Your task to perform on an android device: install app "Google Calendar" Image 0: 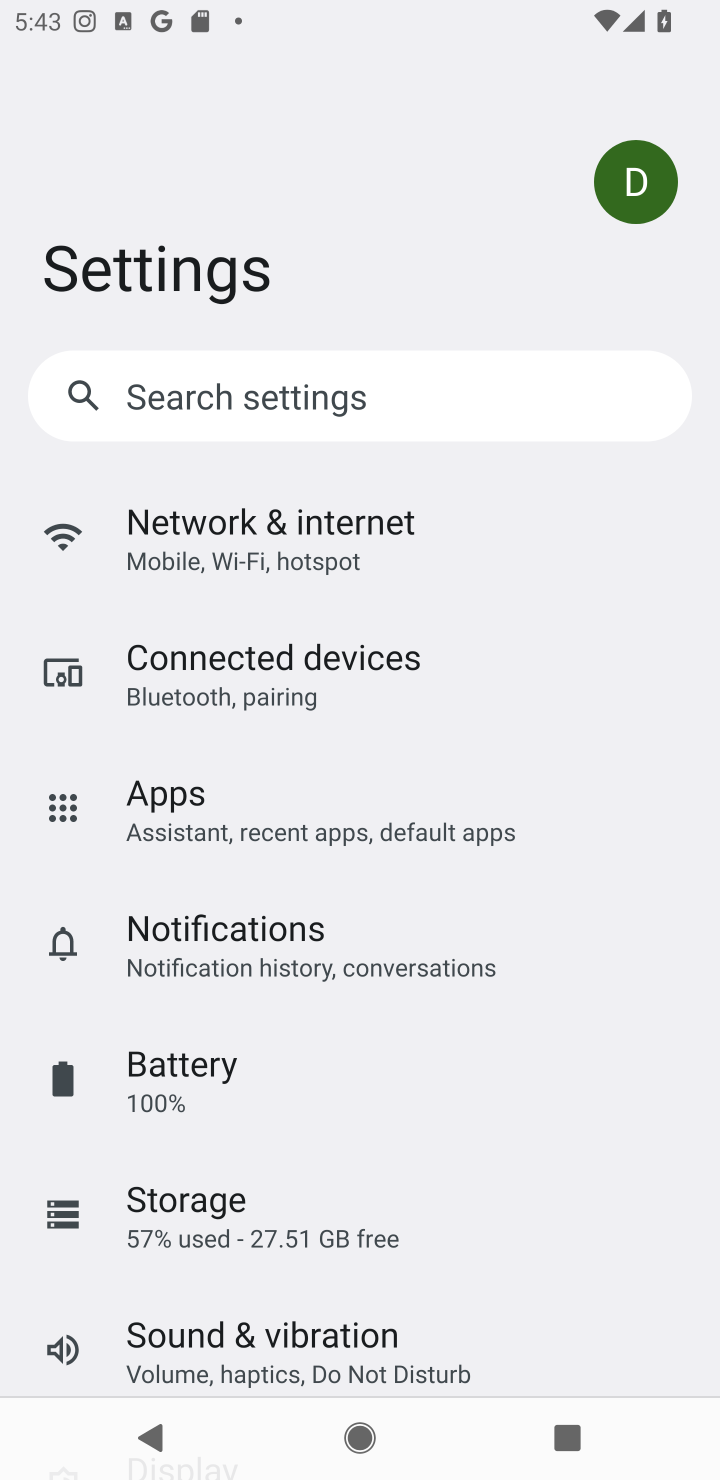
Step 0: press home button
Your task to perform on an android device: install app "Google Calendar" Image 1: 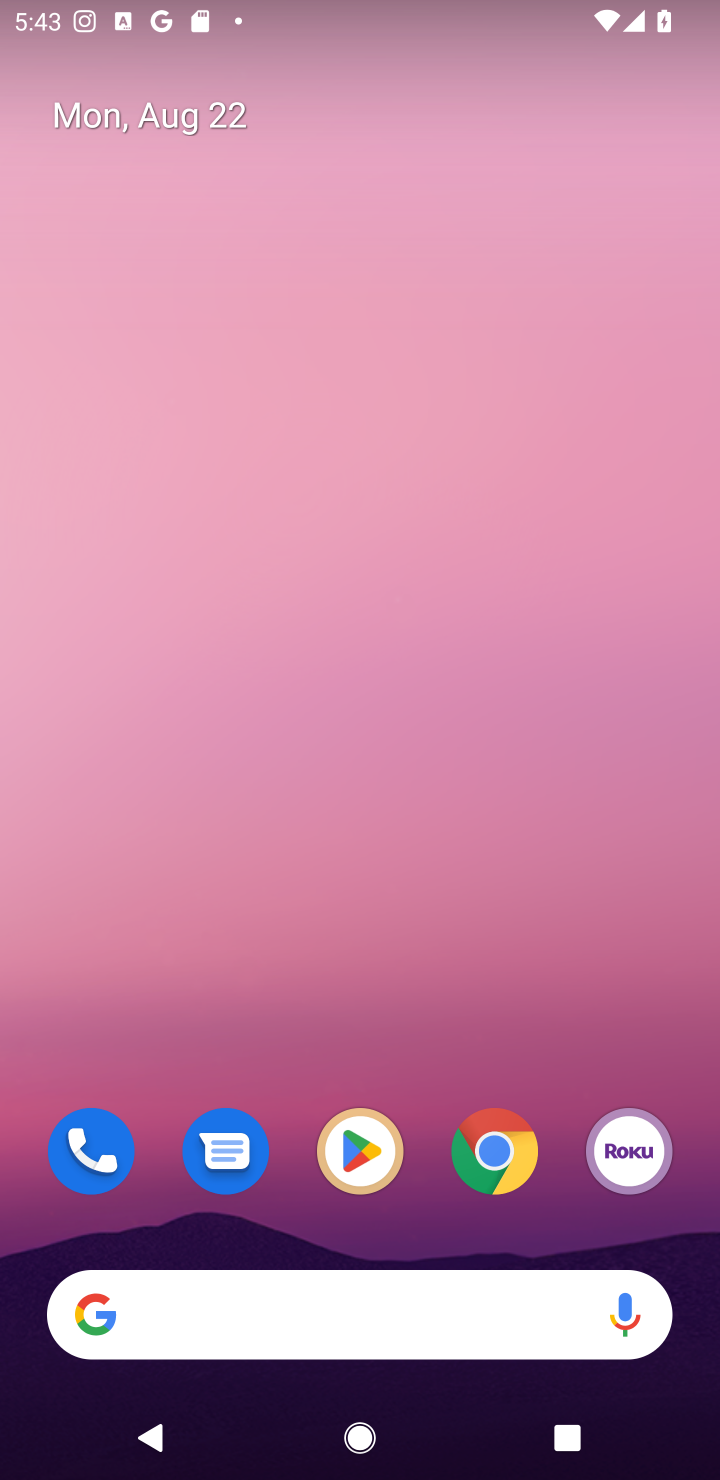
Step 1: click (355, 1153)
Your task to perform on an android device: install app "Google Calendar" Image 2: 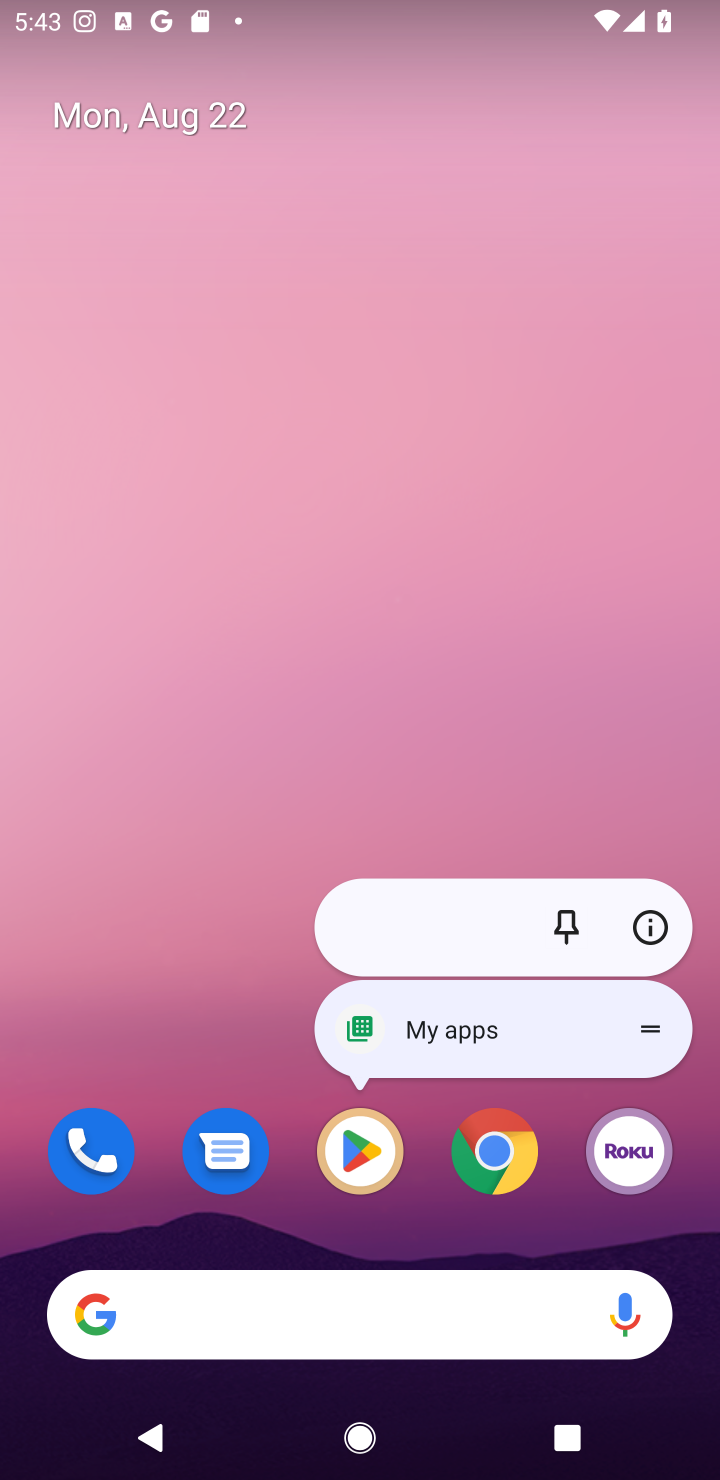
Step 2: click (355, 1153)
Your task to perform on an android device: install app "Google Calendar" Image 3: 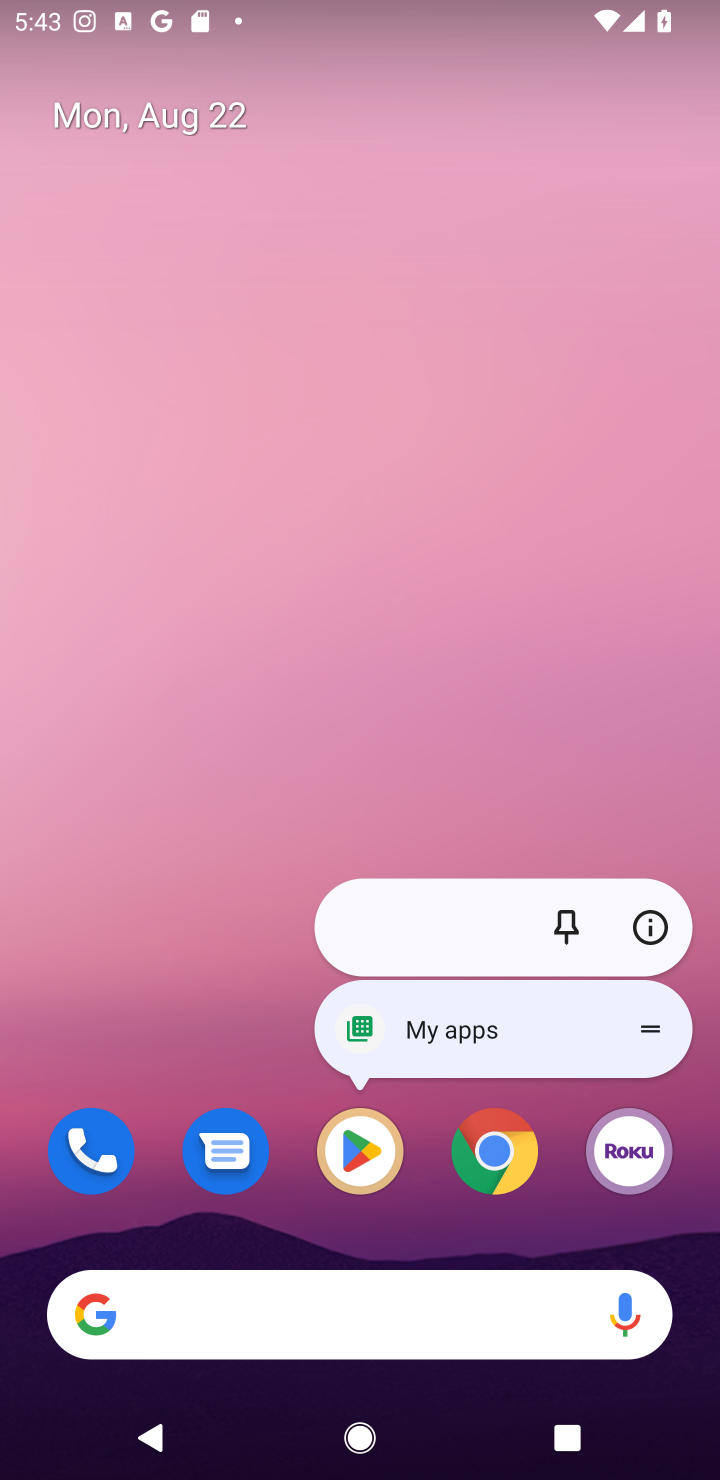
Step 3: click (352, 1159)
Your task to perform on an android device: install app "Google Calendar" Image 4: 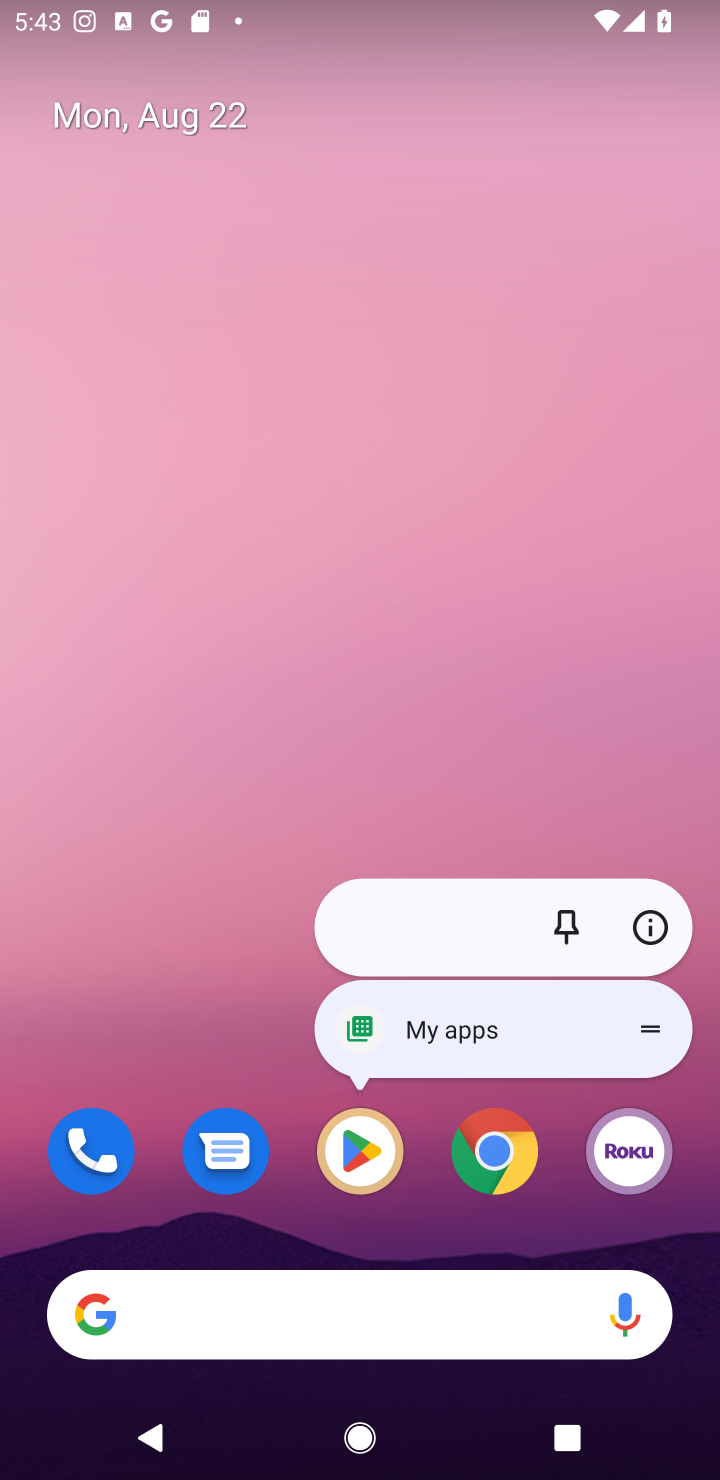
Step 4: click (352, 1159)
Your task to perform on an android device: install app "Google Calendar" Image 5: 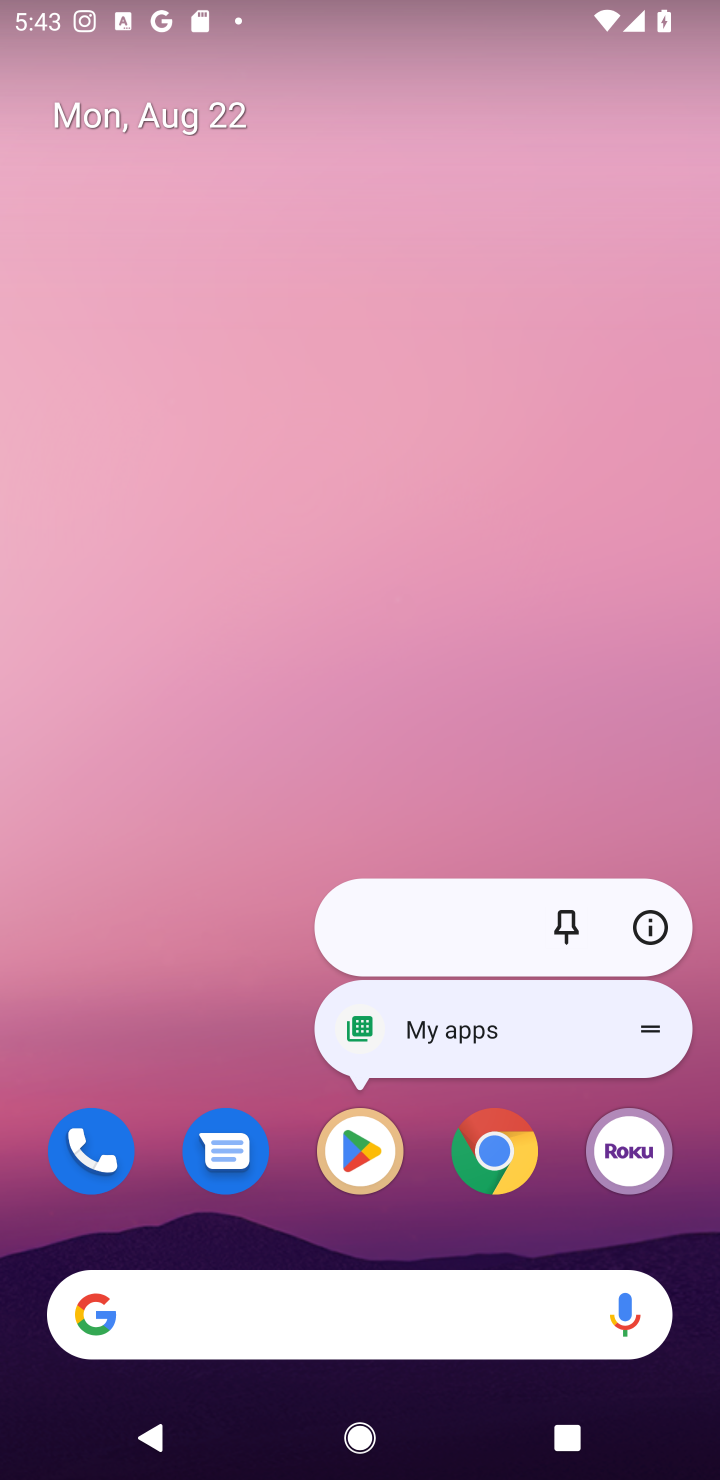
Step 5: click (352, 1162)
Your task to perform on an android device: install app "Google Calendar" Image 6: 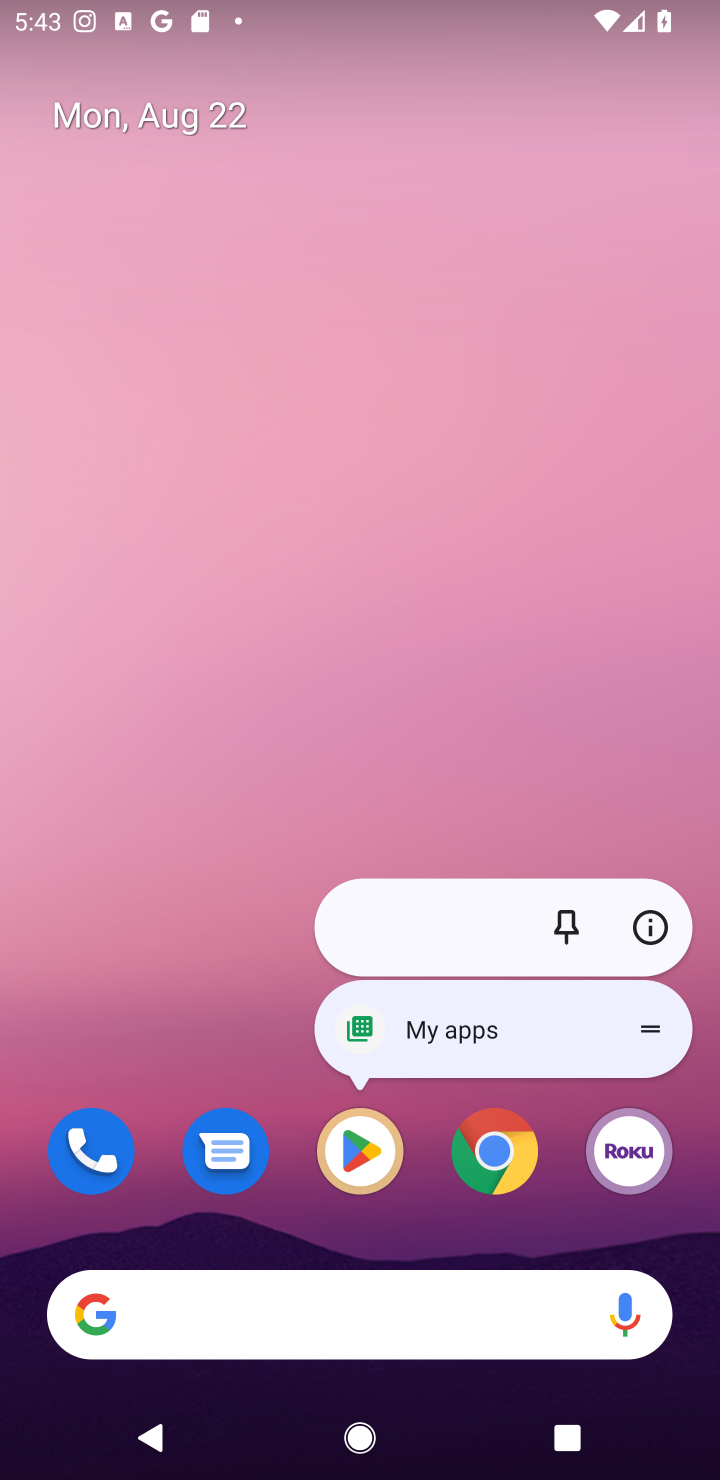
Step 6: click (366, 1153)
Your task to perform on an android device: install app "Google Calendar" Image 7: 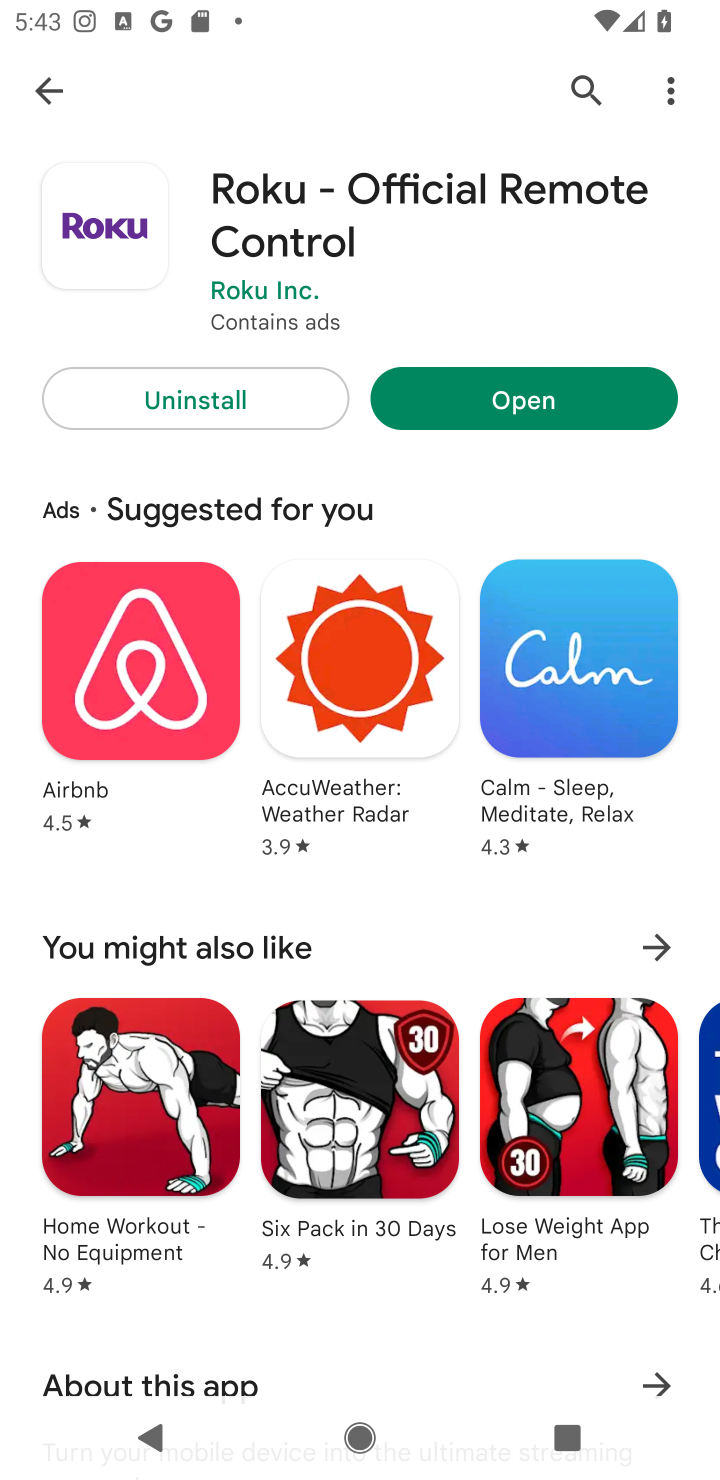
Step 7: click (570, 79)
Your task to perform on an android device: install app "Google Calendar" Image 8: 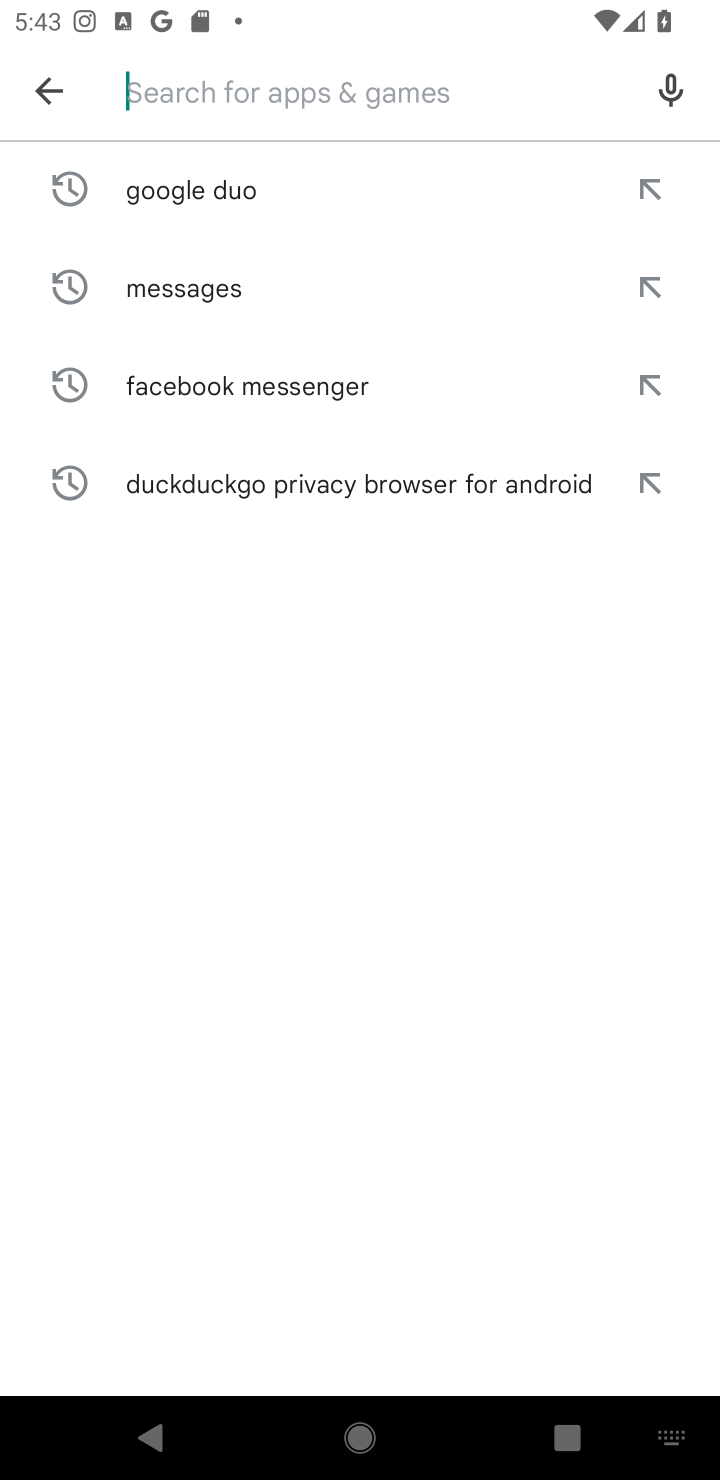
Step 8: type "Google Calendar"
Your task to perform on an android device: install app "Google Calendar" Image 9: 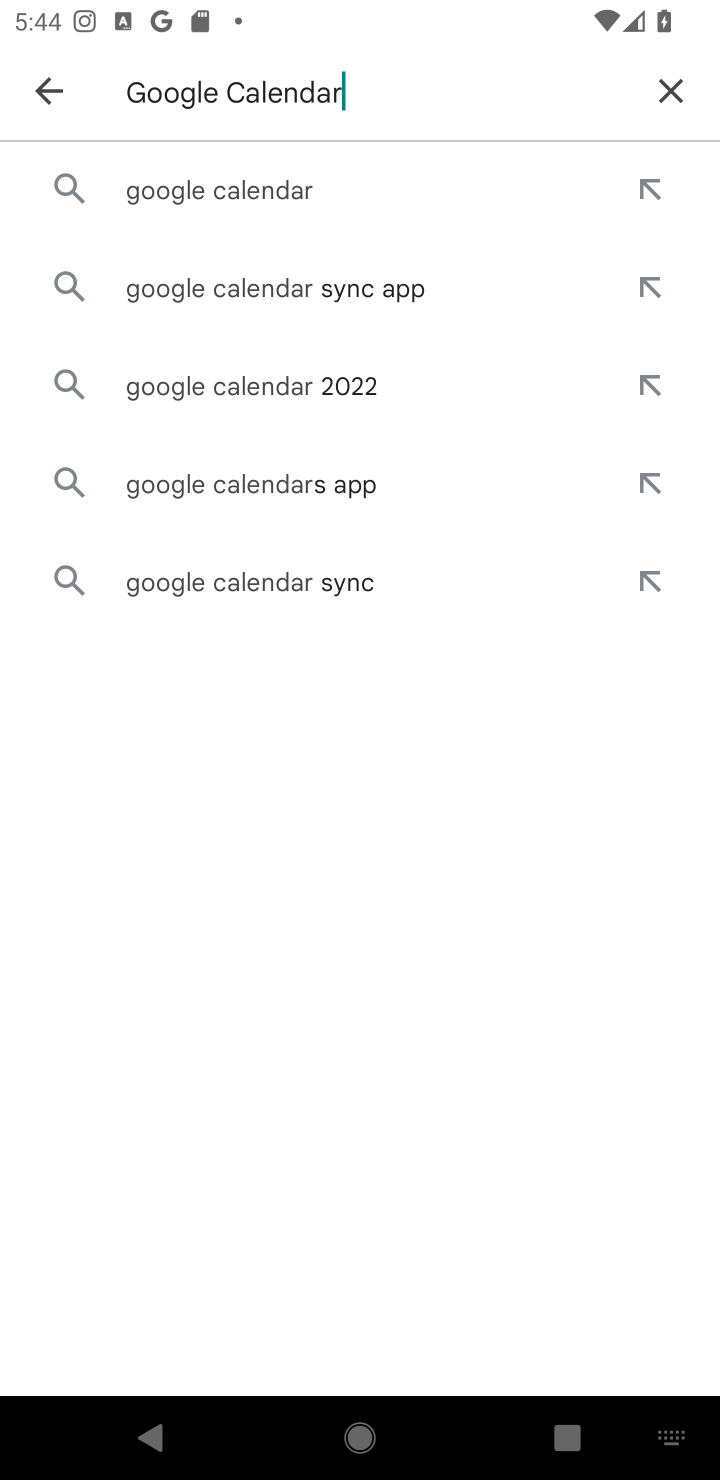
Step 9: click (251, 195)
Your task to perform on an android device: install app "Google Calendar" Image 10: 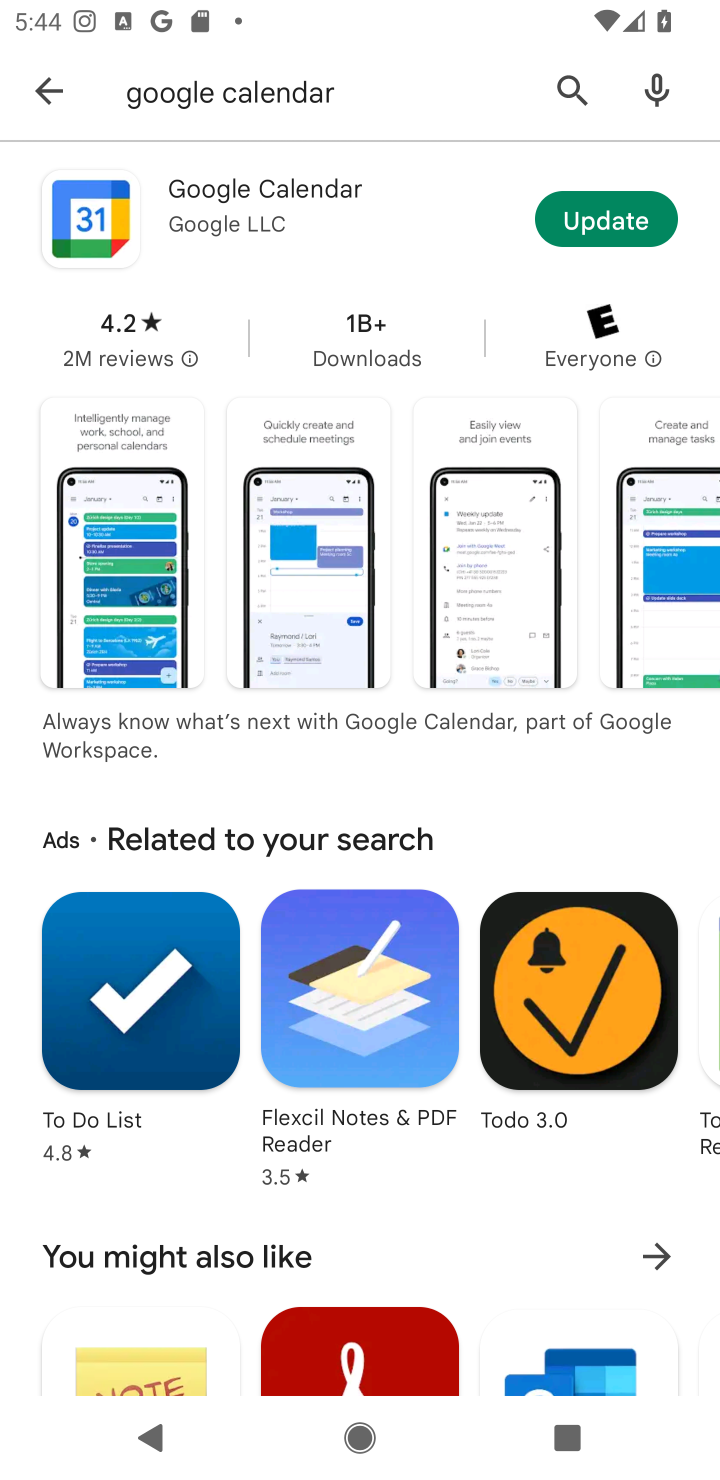
Step 10: click (596, 226)
Your task to perform on an android device: install app "Google Calendar" Image 11: 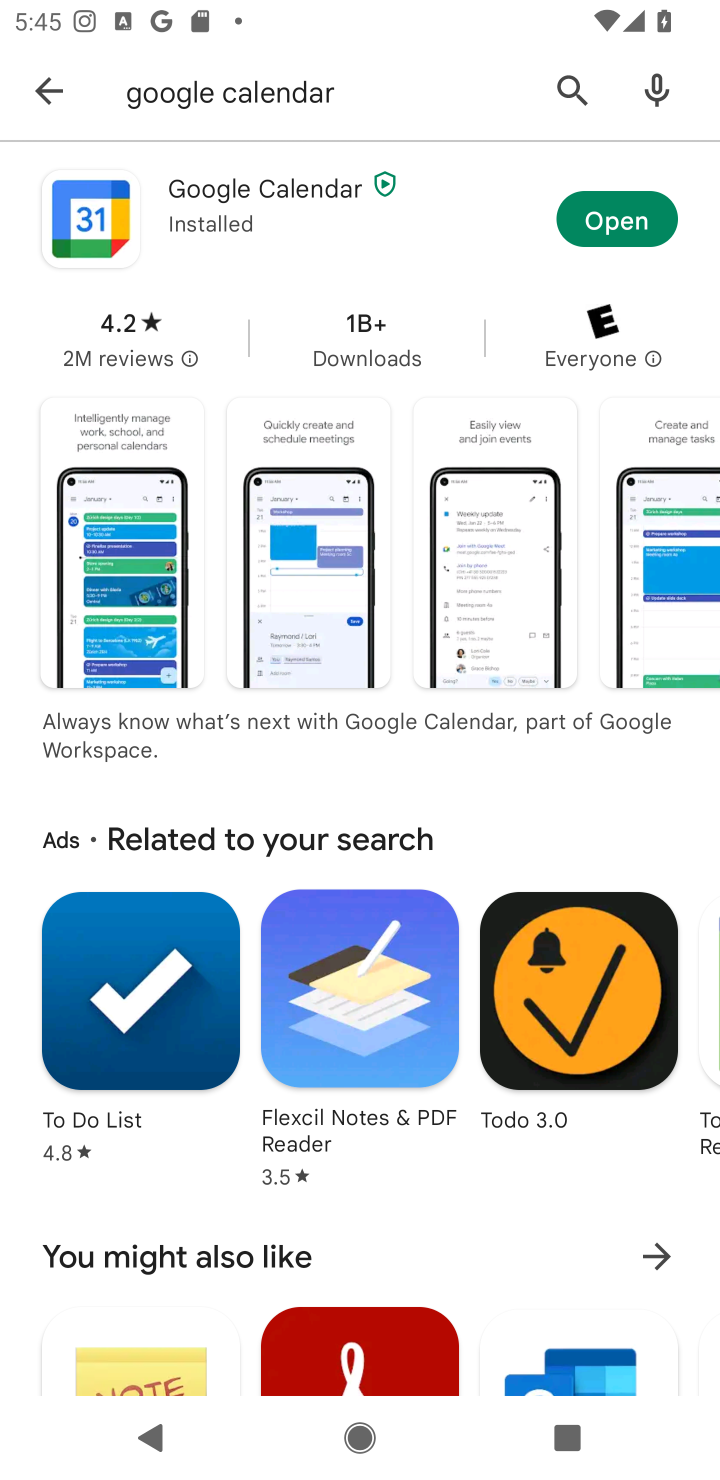
Step 11: task complete